Your task to perform on an android device: toggle notification dots Image 0: 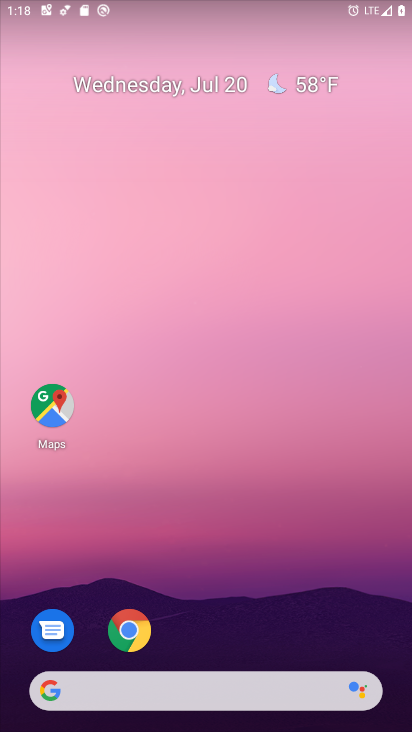
Step 0: drag from (227, 631) to (301, 51)
Your task to perform on an android device: toggle notification dots Image 1: 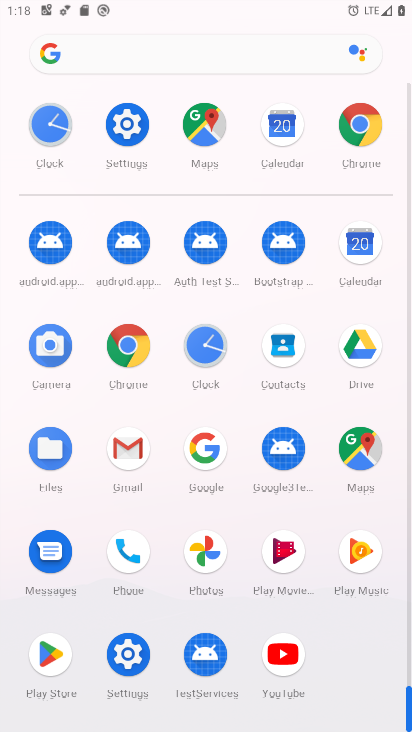
Step 1: click (109, 151)
Your task to perform on an android device: toggle notification dots Image 2: 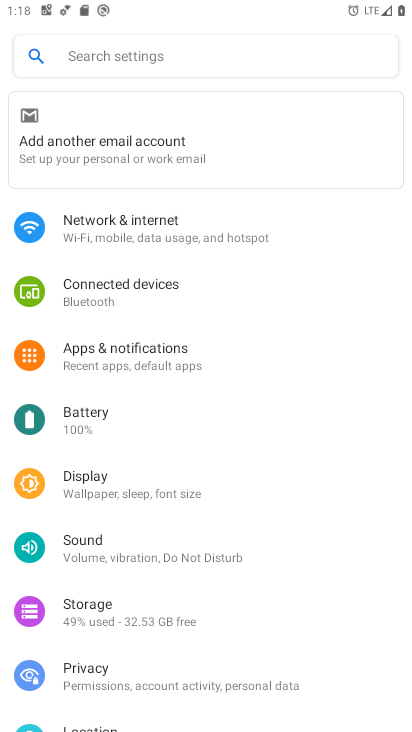
Step 2: click (201, 358)
Your task to perform on an android device: toggle notification dots Image 3: 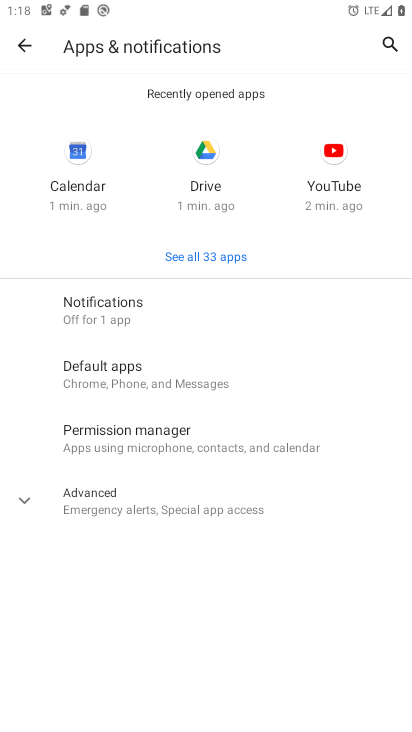
Step 3: click (206, 317)
Your task to perform on an android device: toggle notification dots Image 4: 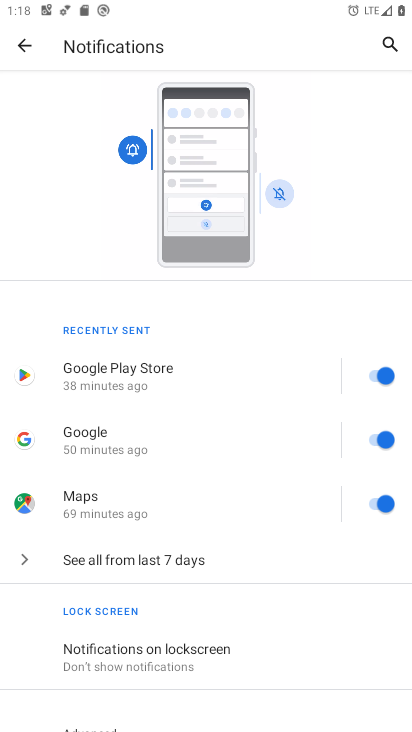
Step 4: drag from (294, 592) to (352, 267)
Your task to perform on an android device: toggle notification dots Image 5: 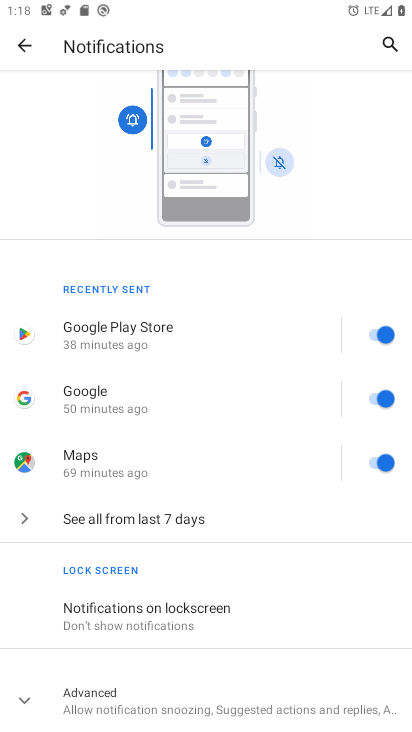
Step 5: click (248, 701)
Your task to perform on an android device: toggle notification dots Image 6: 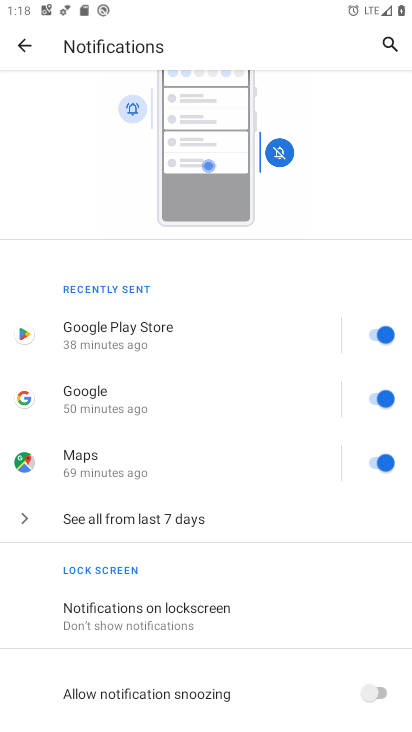
Step 6: drag from (230, 532) to (226, 228)
Your task to perform on an android device: toggle notification dots Image 7: 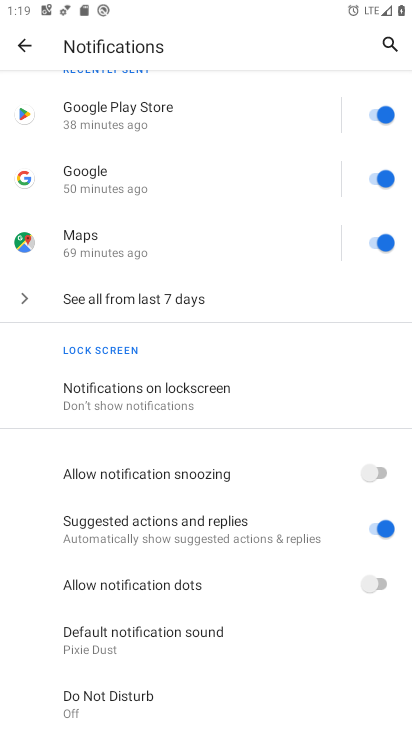
Step 7: click (340, 600)
Your task to perform on an android device: toggle notification dots Image 8: 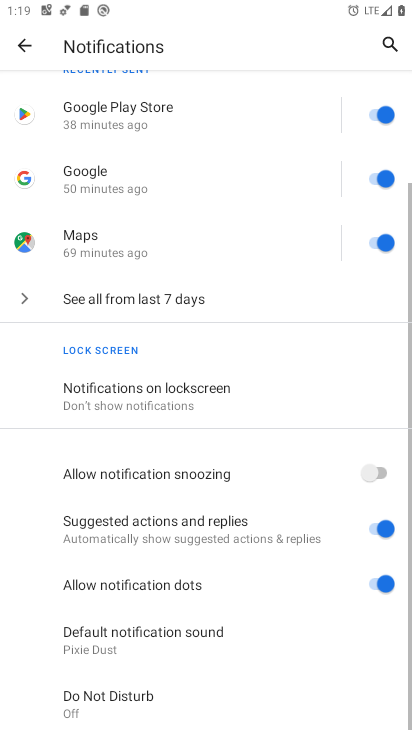
Step 8: task complete